Your task to perform on an android device: turn smart compose on in the gmail app Image 0: 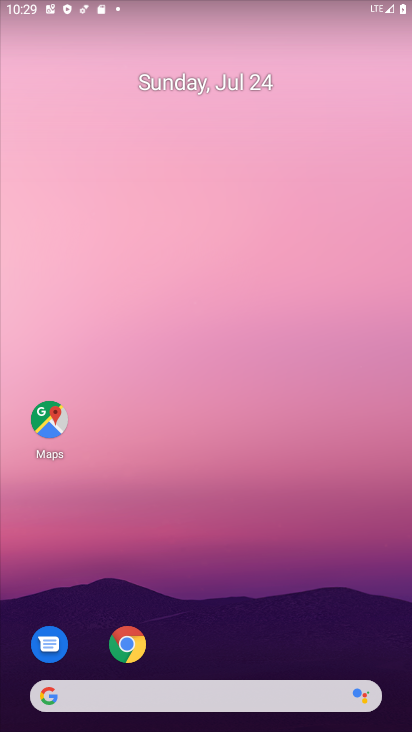
Step 0: drag from (55, 541) to (205, 126)
Your task to perform on an android device: turn smart compose on in the gmail app Image 1: 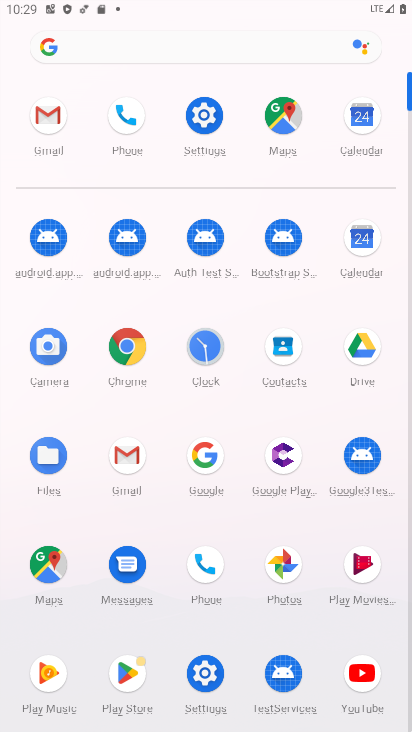
Step 1: click (58, 117)
Your task to perform on an android device: turn smart compose on in the gmail app Image 2: 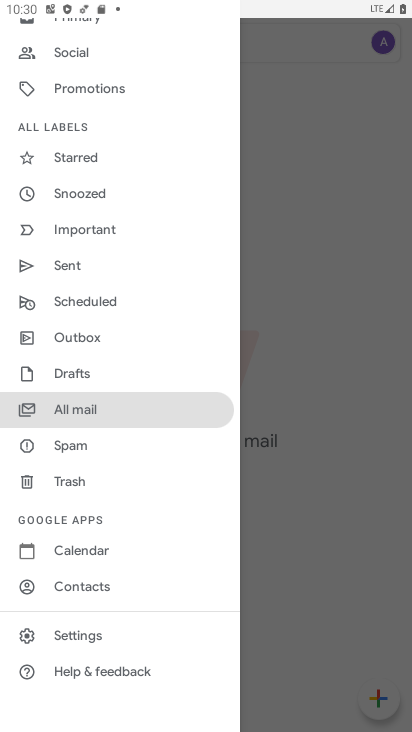
Step 2: click (96, 641)
Your task to perform on an android device: turn smart compose on in the gmail app Image 3: 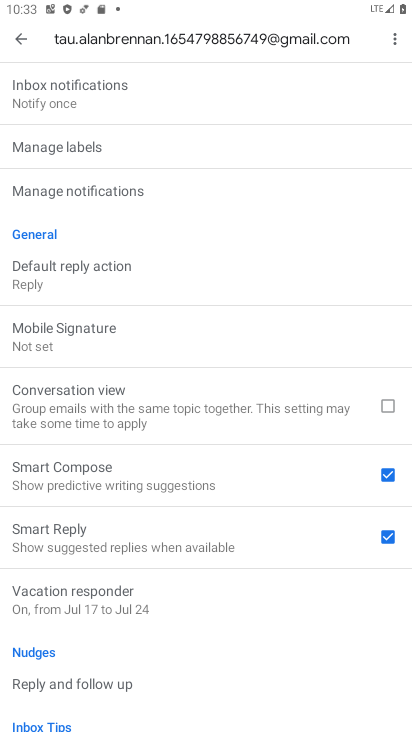
Step 3: task complete